Your task to perform on an android device: toggle data saver in the chrome app Image 0: 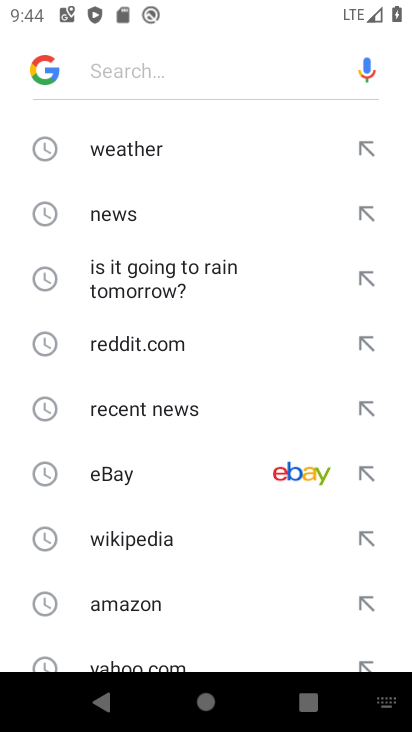
Step 0: press home button
Your task to perform on an android device: toggle data saver in the chrome app Image 1: 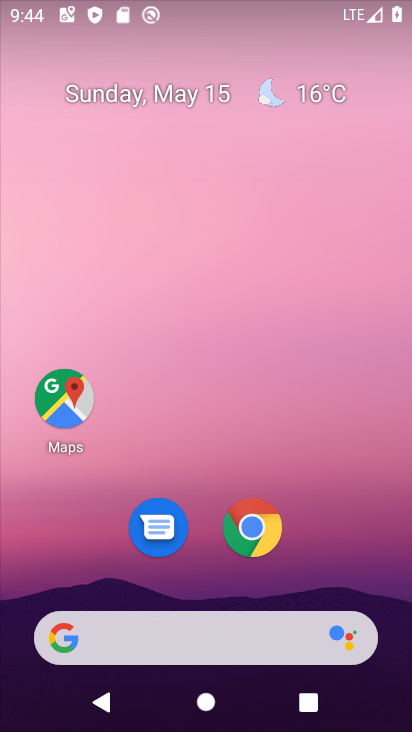
Step 1: click (246, 538)
Your task to perform on an android device: toggle data saver in the chrome app Image 2: 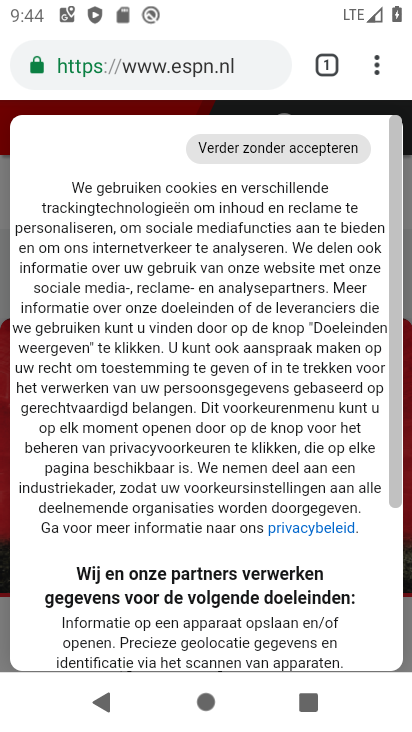
Step 2: click (375, 58)
Your task to perform on an android device: toggle data saver in the chrome app Image 3: 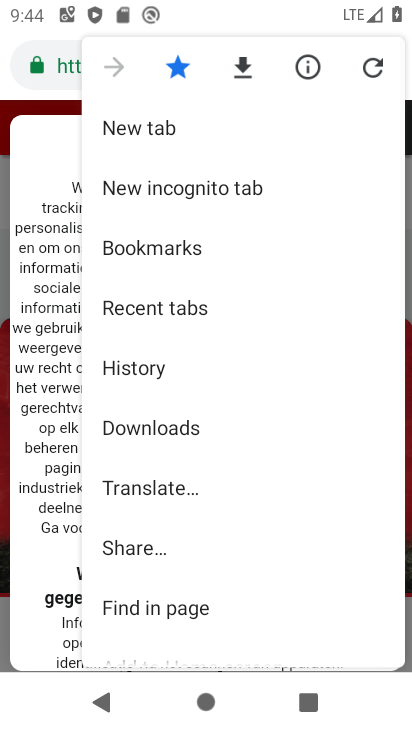
Step 3: drag from (258, 547) to (255, 147)
Your task to perform on an android device: toggle data saver in the chrome app Image 4: 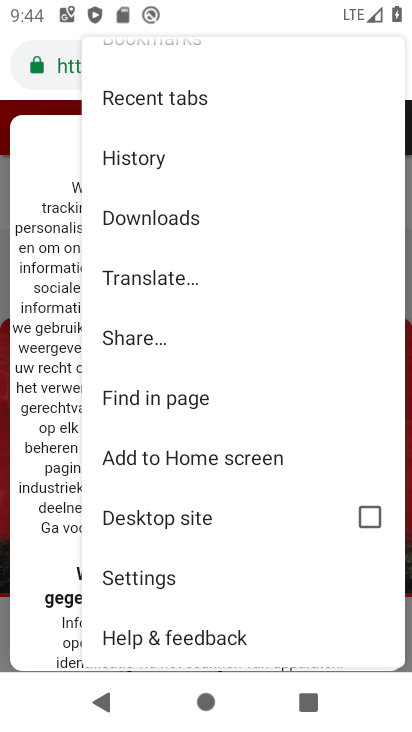
Step 4: click (154, 582)
Your task to perform on an android device: toggle data saver in the chrome app Image 5: 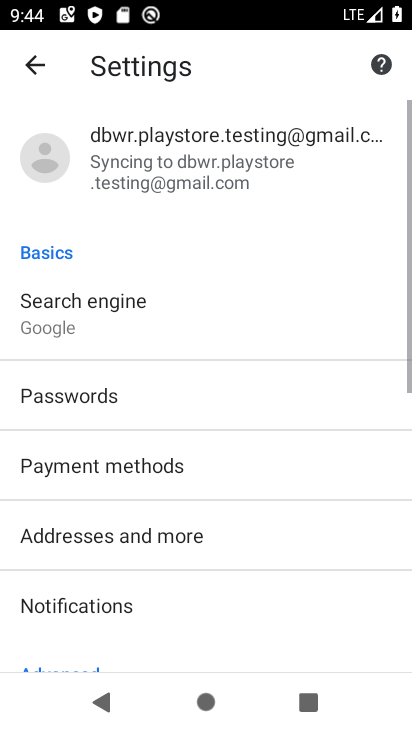
Step 5: drag from (158, 589) to (191, 59)
Your task to perform on an android device: toggle data saver in the chrome app Image 6: 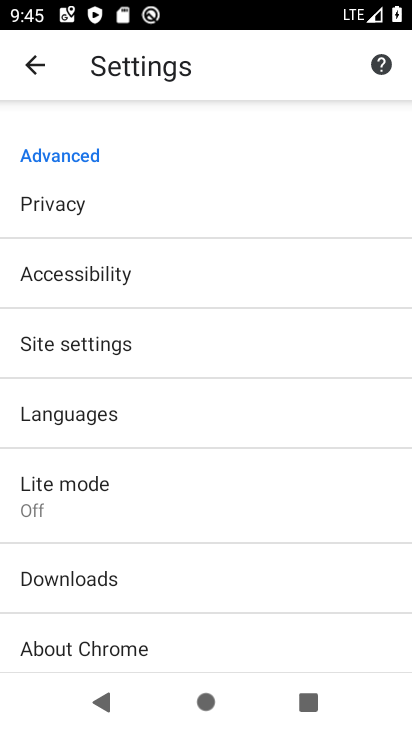
Step 6: click (58, 504)
Your task to perform on an android device: toggle data saver in the chrome app Image 7: 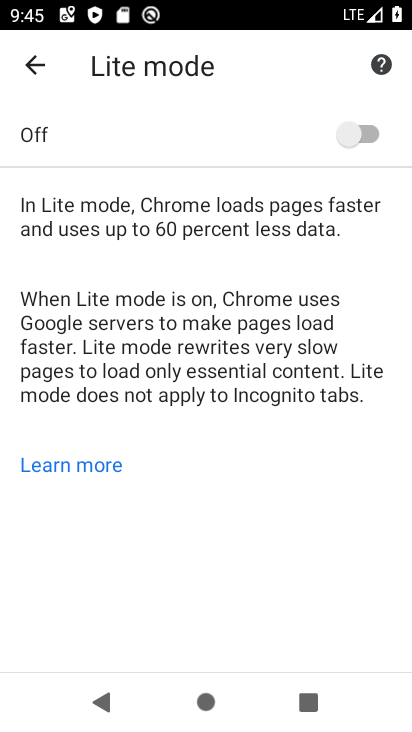
Step 7: click (343, 126)
Your task to perform on an android device: toggle data saver in the chrome app Image 8: 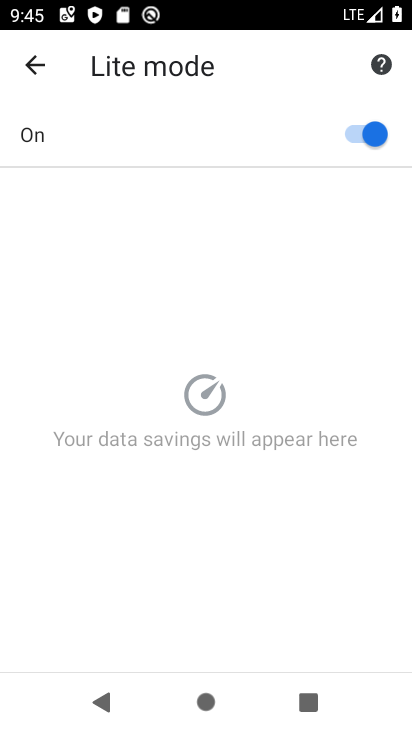
Step 8: task complete